Your task to perform on an android device: turn on sleep mode Image 0: 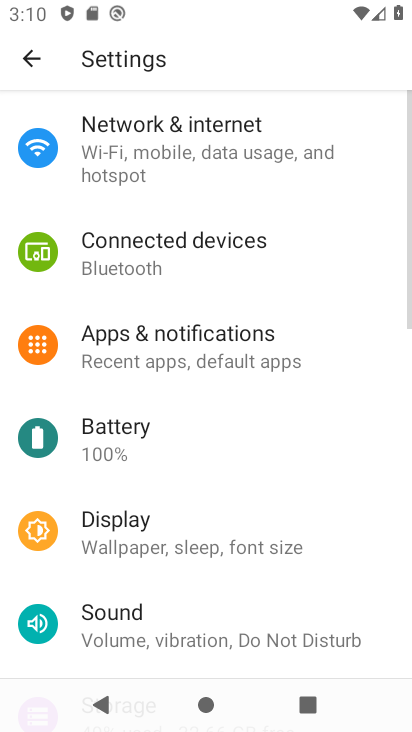
Step 0: click (229, 546)
Your task to perform on an android device: turn on sleep mode Image 1: 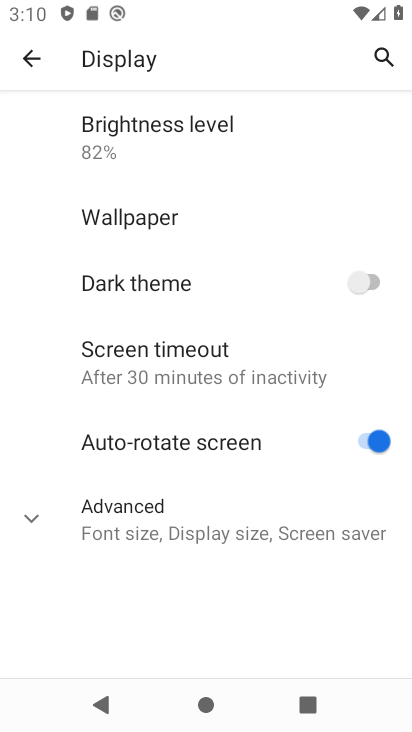
Step 1: click (207, 540)
Your task to perform on an android device: turn on sleep mode Image 2: 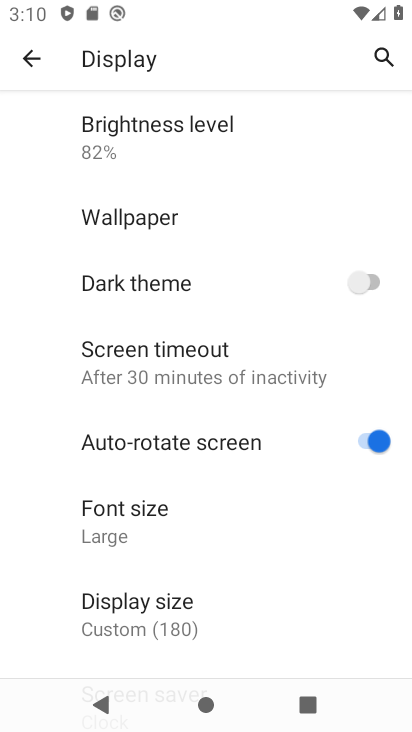
Step 2: task complete